Your task to perform on an android device: Open maps Image 0: 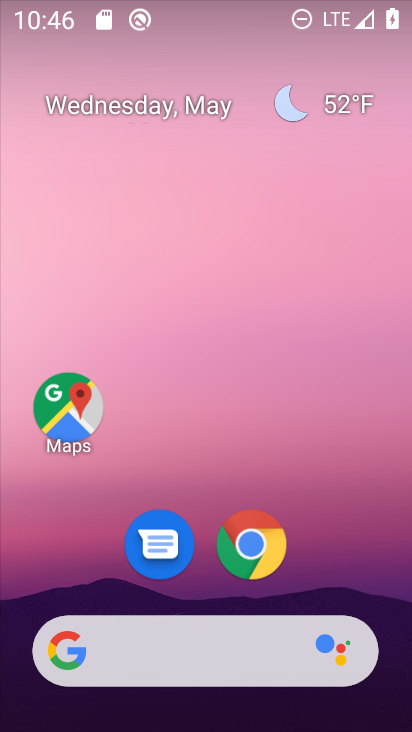
Step 0: click (71, 413)
Your task to perform on an android device: Open maps Image 1: 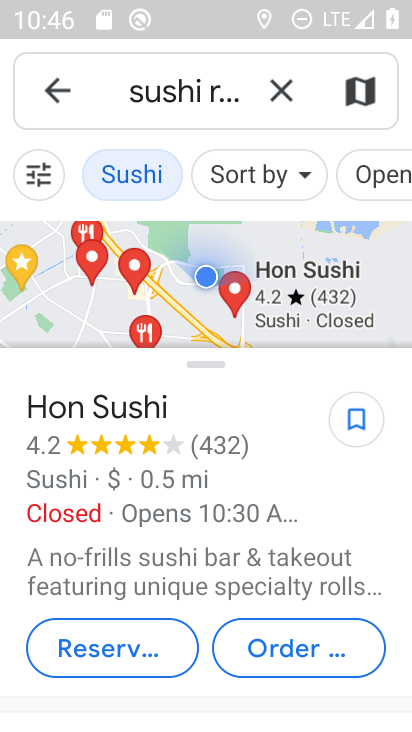
Step 1: task complete